Your task to perform on an android device: Open the Play Movies app and select the watchlist tab. Image 0: 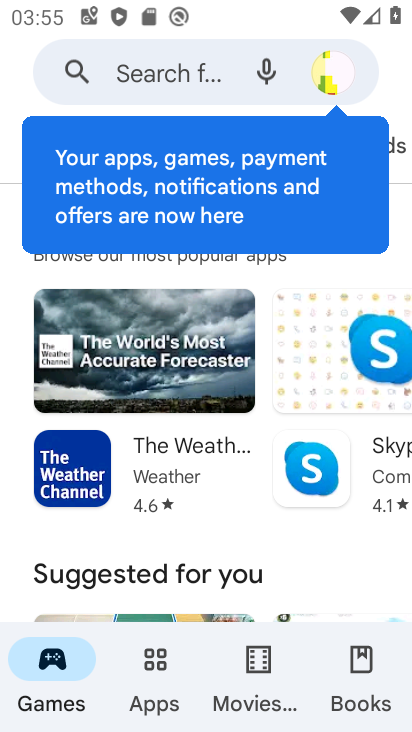
Step 0: press home button
Your task to perform on an android device: Open the Play Movies app and select the watchlist tab. Image 1: 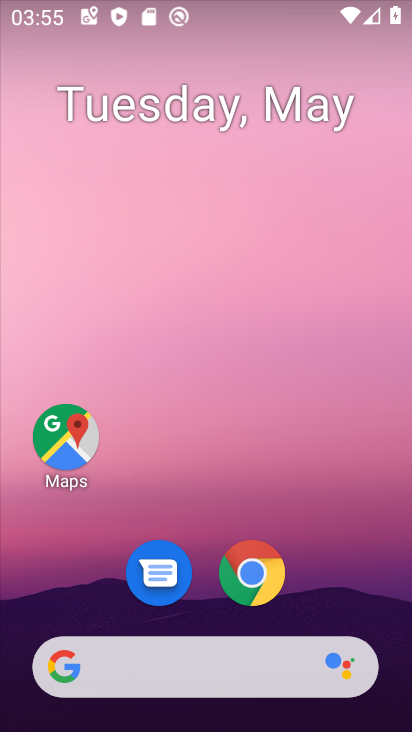
Step 1: drag from (191, 557) to (288, 90)
Your task to perform on an android device: Open the Play Movies app and select the watchlist tab. Image 2: 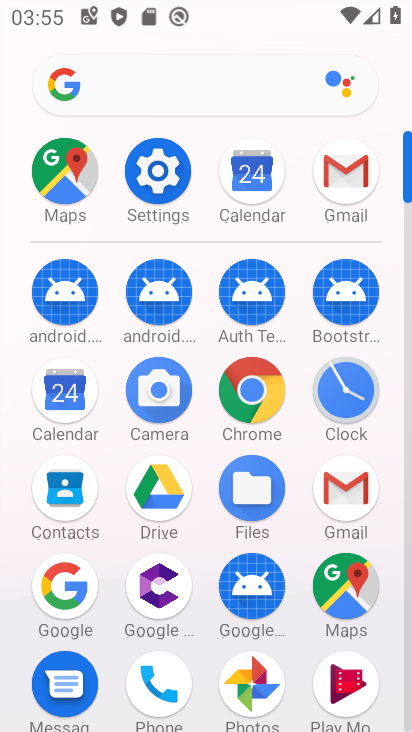
Step 2: click (345, 687)
Your task to perform on an android device: Open the Play Movies app and select the watchlist tab. Image 3: 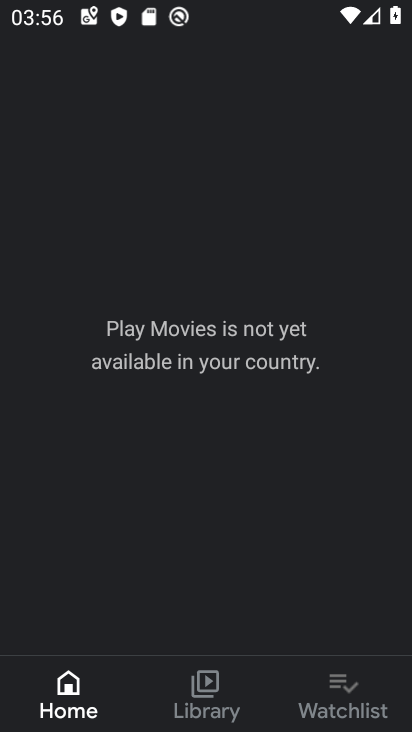
Step 3: click (355, 685)
Your task to perform on an android device: Open the Play Movies app and select the watchlist tab. Image 4: 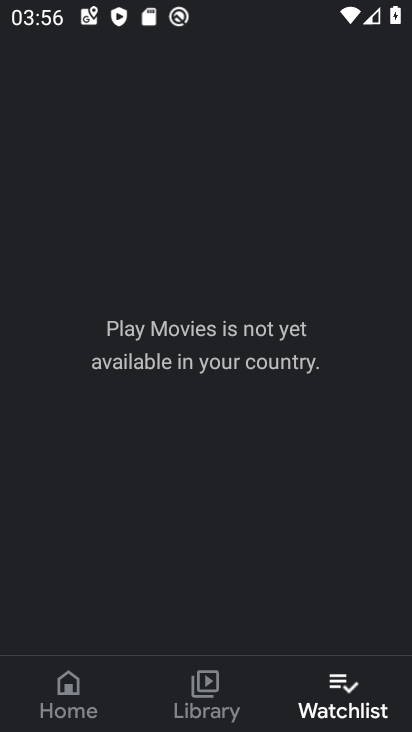
Step 4: task complete